Your task to perform on an android device: check data usage Image 0: 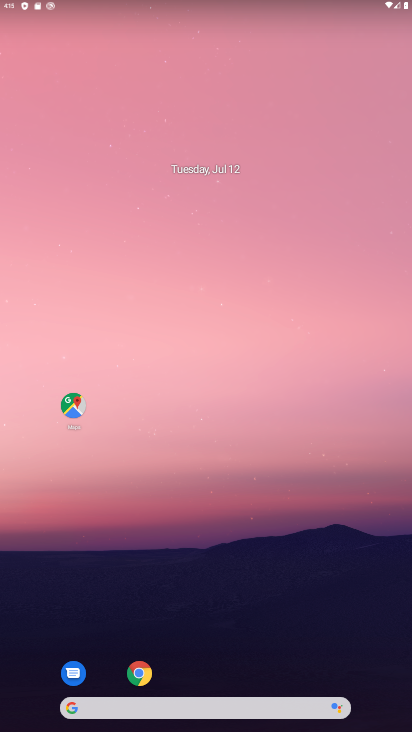
Step 0: drag from (198, 588) to (229, 24)
Your task to perform on an android device: check data usage Image 1: 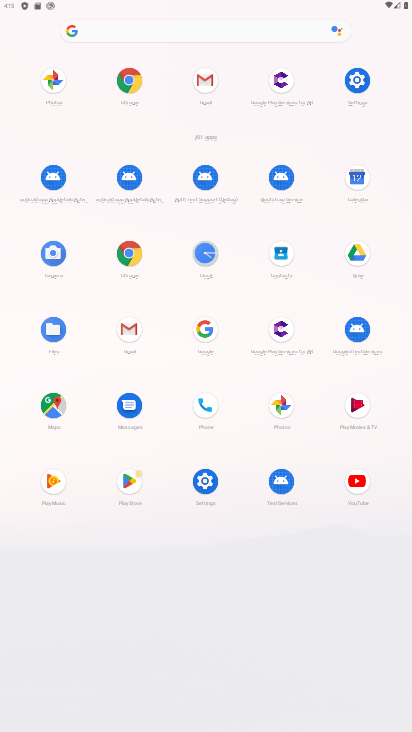
Step 1: click (351, 87)
Your task to perform on an android device: check data usage Image 2: 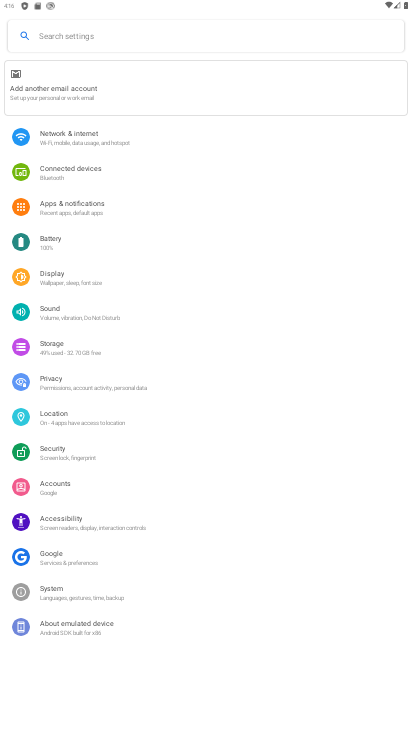
Step 2: click (101, 143)
Your task to perform on an android device: check data usage Image 3: 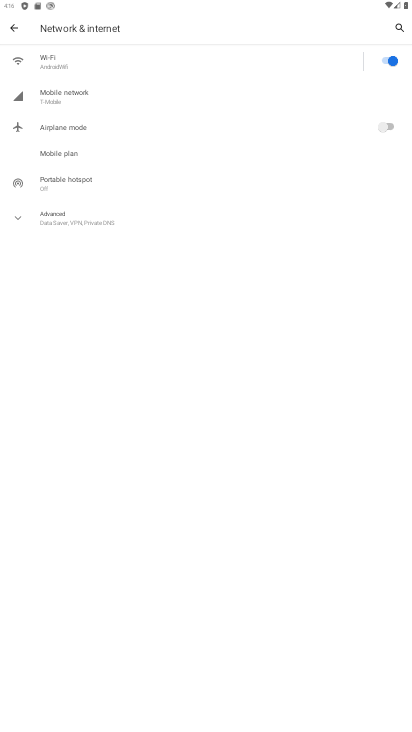
Step 3: click (81, 94)
Your task to perform on an android device: check data usage Image 4: 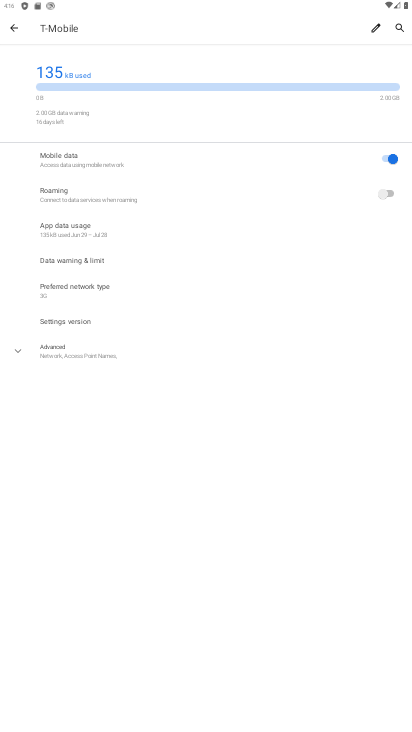
Step 4: task complete